Your task to perform on an android device: Open the map Image 0: 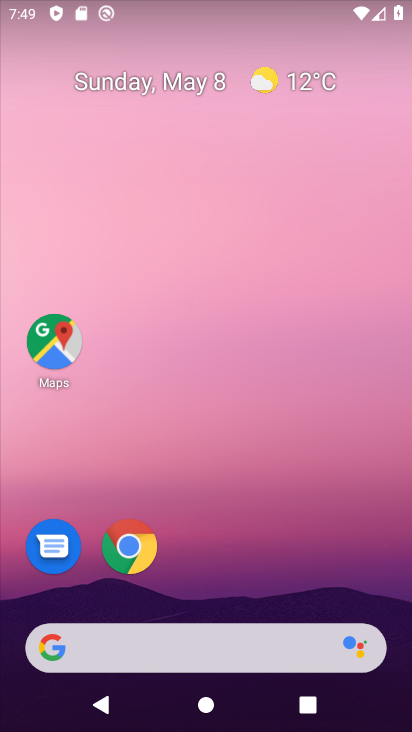
Step 0: click (57, 346)
Your task to perform on an android device: Open the map Image 1: 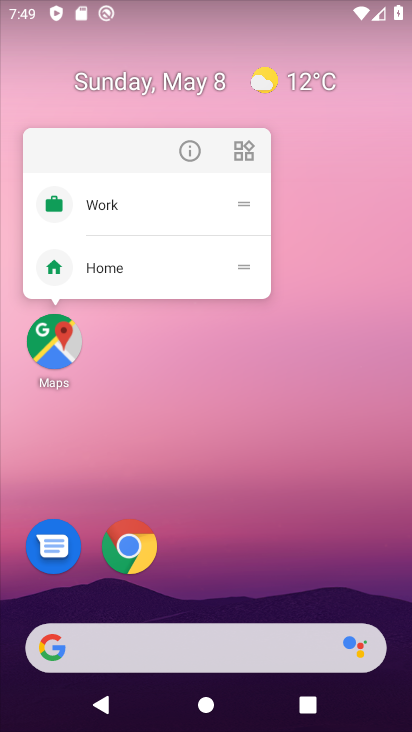
Step 1: click (53, 337)
Your task to perform on an android device: Open the map Image 2: 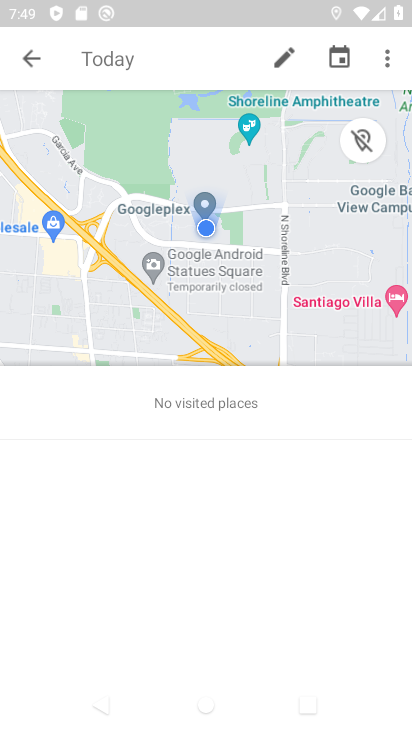
Step 2: task complete